Your task to perform on an android device: Open calendar and show me the first week of next month Image 0: 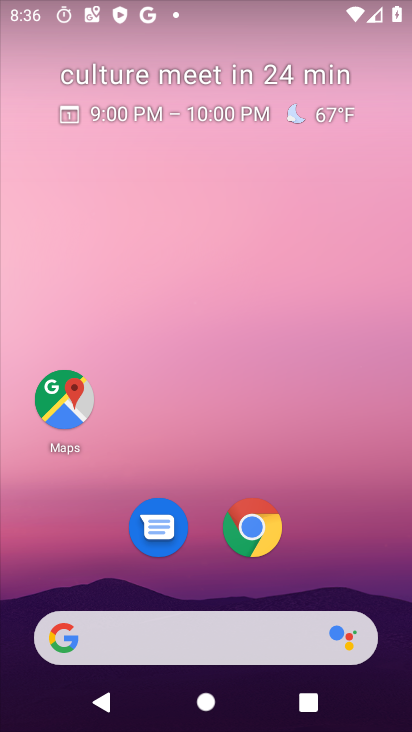
Step 0: drag from (253, 722) to (261, 11)
Your task to perform on an android device: Open calendar and show me the first week of next month Image 1: 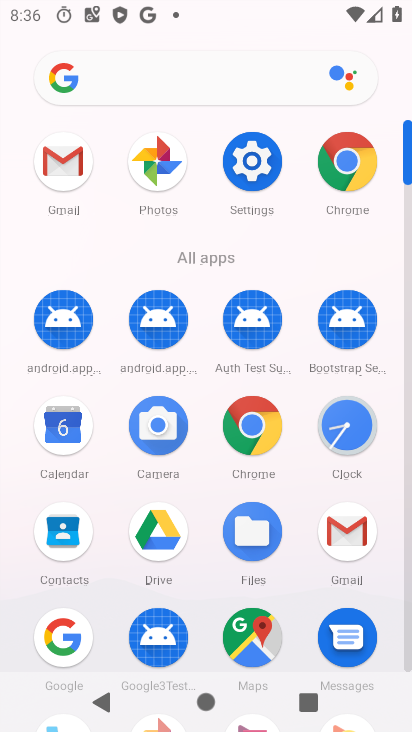
Step 1: click (66, 429)
Your task to perform on an android device: Open calendar and show me the first week of next month Image 2: 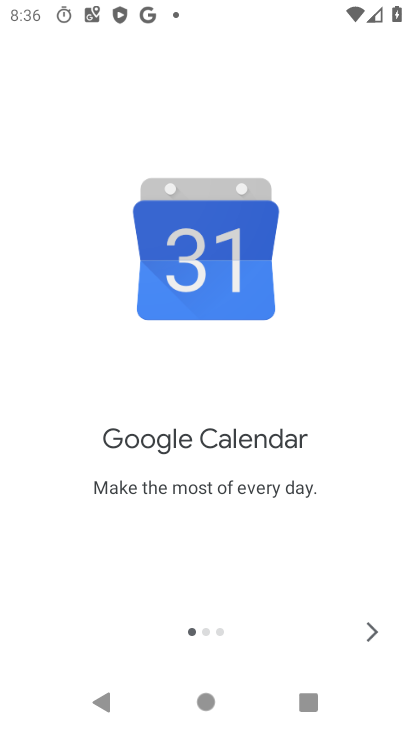
Step 2: click (369, 631)
Your task to perform on an android device: Open calendar and show me the first week of next month Image 3: 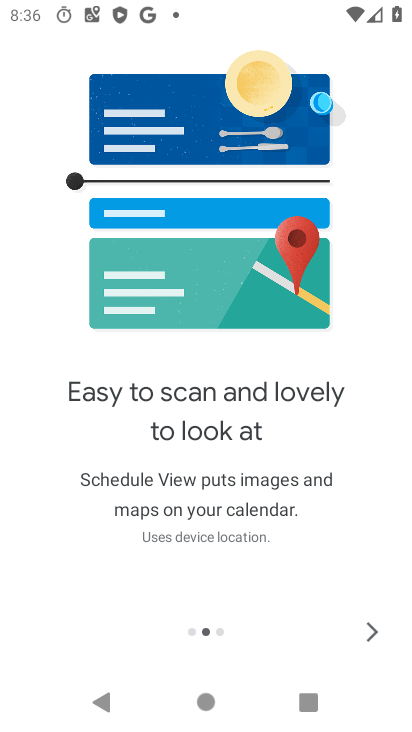
Step 3: click (369, 631)
Your task to perform on an android device: Open calendar and show me the first week of next month Image 4: 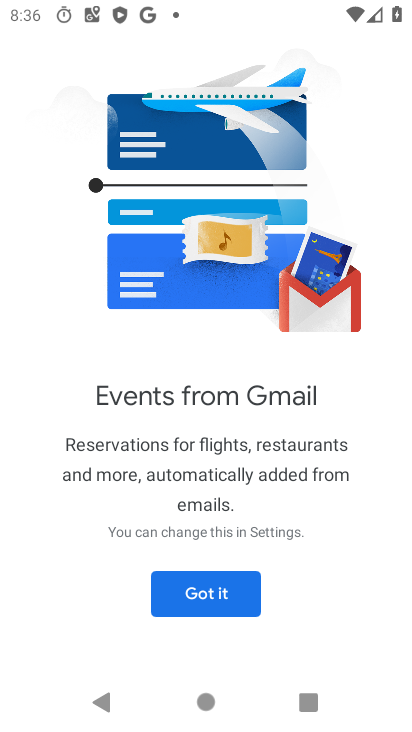
Step 4: click (225, 598)
Your task to perform on an android device: Open calendar and show me the first week of next month Image 5: 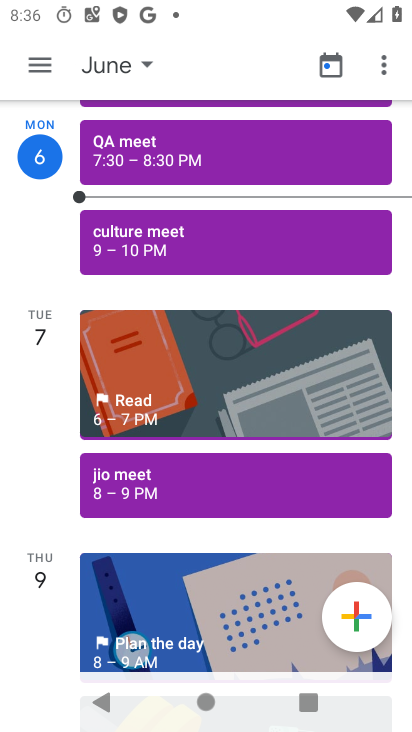
Step 5: click (142, 60)
Your task to perform on an android device: Open calendar and show me the first week of next month Image 6: 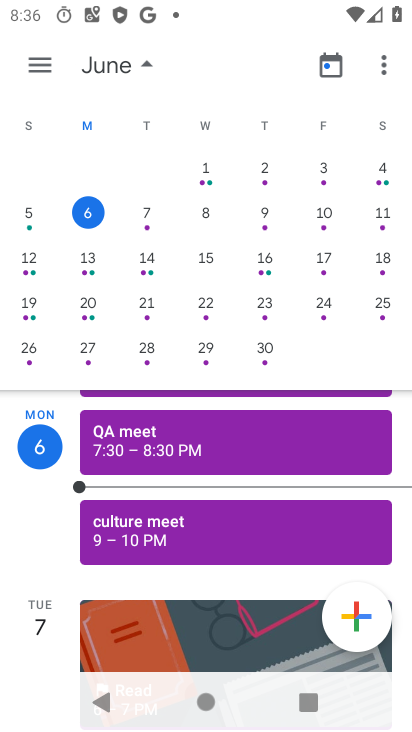
Step 6: drag from (360, 290) to (3, 230)
Your task to perform on an android device: Open calendar and show me the first week of next month Image 7: 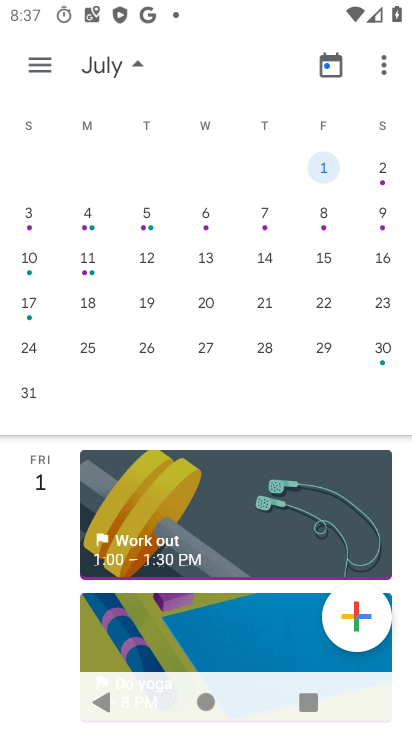
Step 7: click (87, 215)
Your task to perform on an android device: Open calendar and show me the first week of next month Image 8: 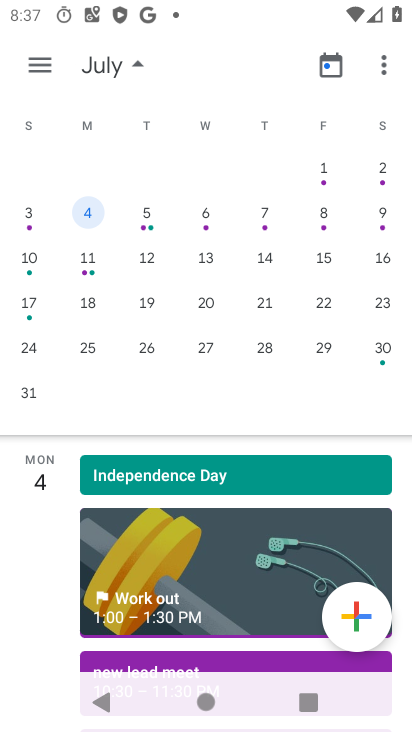
Step 8: click (44, 66)
Your task to perform on an android device: Open calendar and show me the first week of next month Image 9: 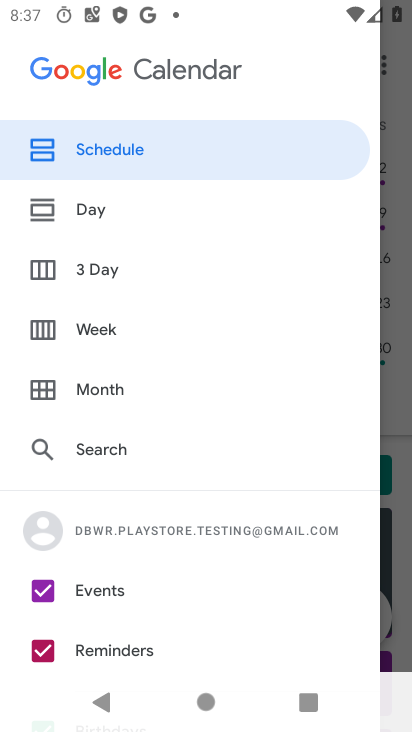
Step 9: click (97, 331)
Your task to perform on an android device: Open calendar and show me the first week of next month Image 10: 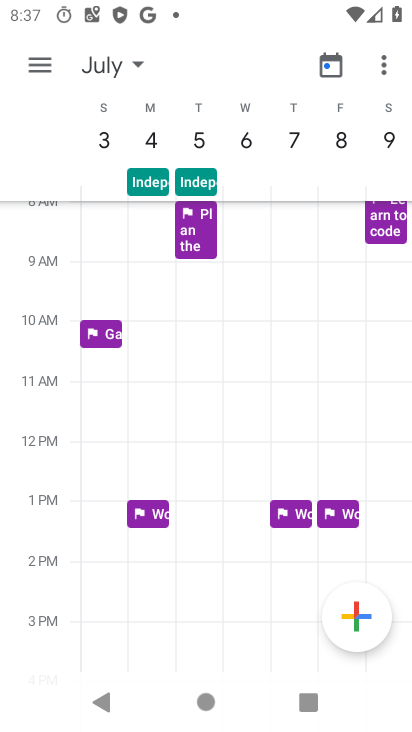
Step 10: task complete